Your task to perform on an android device: turn smart compose on in the gmail app Image 0: 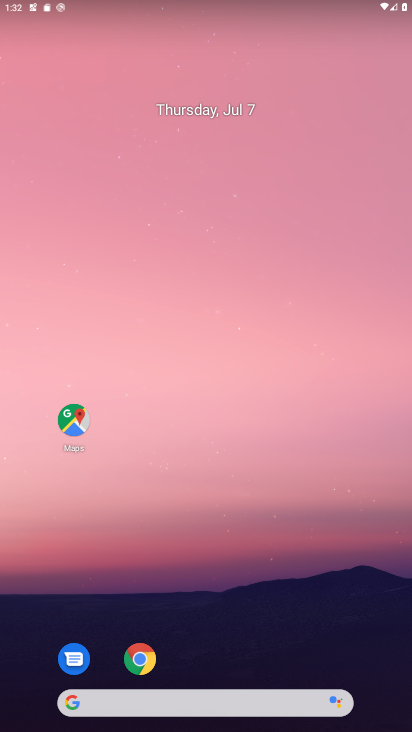
Step 0: drag from (245, 472) to (333, 58)
Your task to perform on an android device: turn smart compose on in the gmail app Image 1: 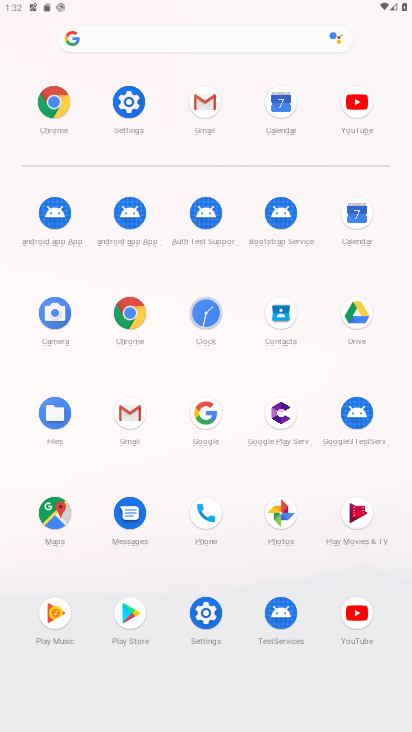
Step 1: click (126, 409)
Your task to perform on an android device: turn smart compose on in the gmail app Image 2: 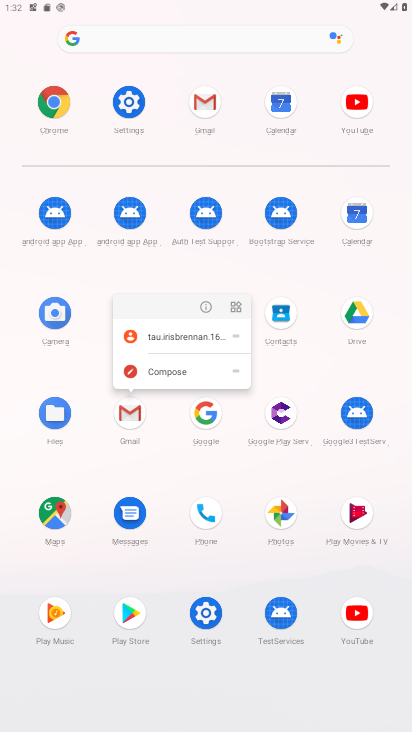
Step 2: click (210, 303)
Your task to perform on an android device: turn smart compose on in the gmail app Image 3: 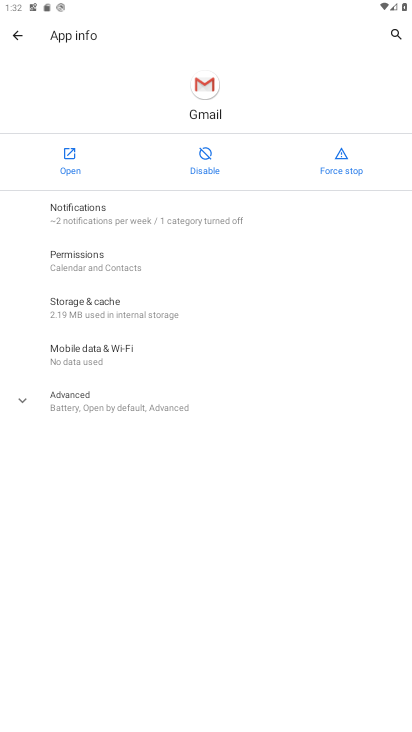
Step 3: click (64, 165)
Your task to perform on an android device: turn smart compose on in the gmail app Image 4: 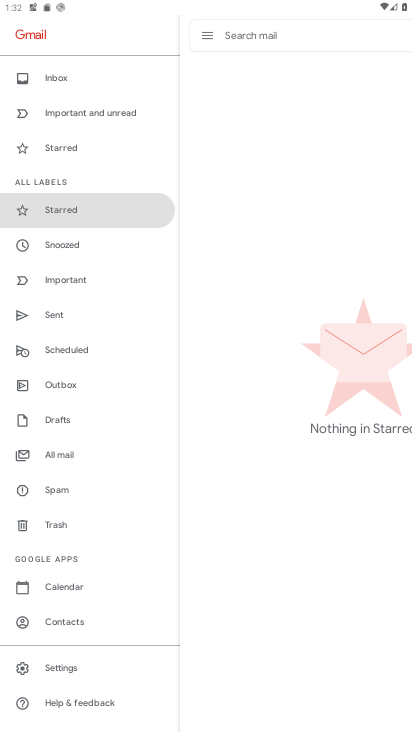
Step 4: click (252, 628)
Your task to perform on an android device: turn smart compose on in the gmail app Image 5: 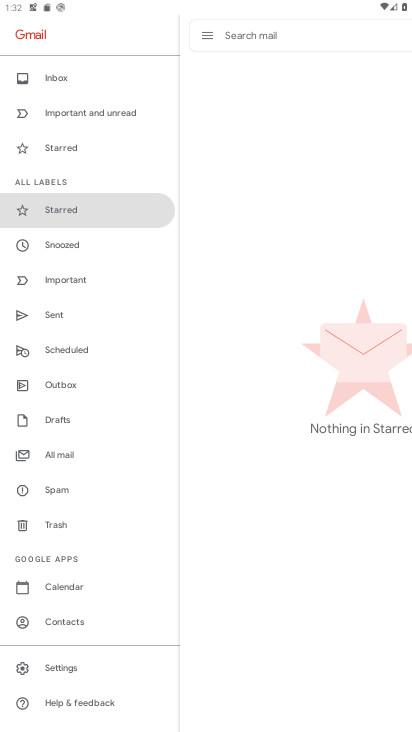
Step 5: click (205, 24)
Your task to perform on an android device: turn smart compose on in the gmail app Image 6: 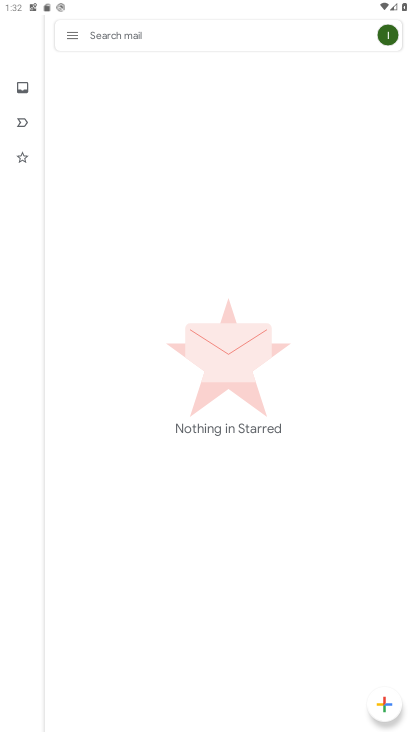
Step 6: click (74, 44)
Your task to perform on an android device: turn smart compose on in the gmail app Image 7: 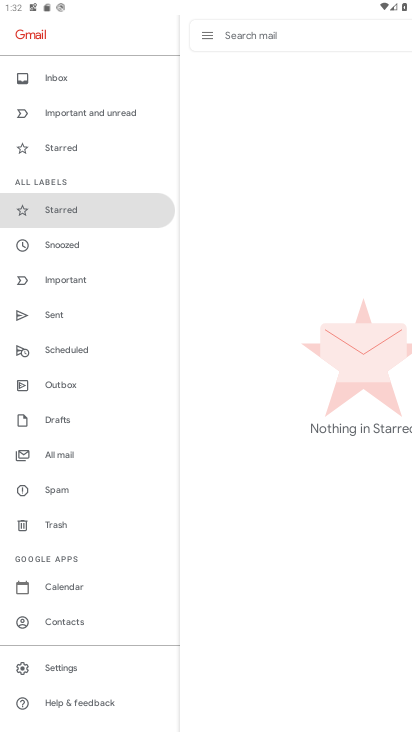
Step 7: click (71, 669)
Your task to perform on an android device: turn smart compose on in the gmail app Image 8: 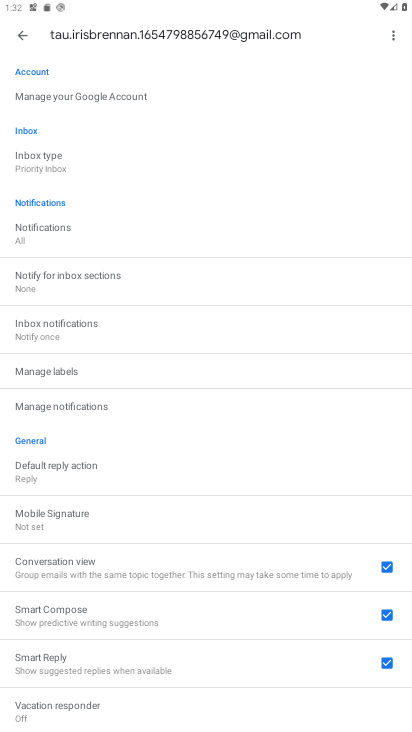
Step 8: task complete